Your task to perform on an android device: Go to Reddit.com Image 0: 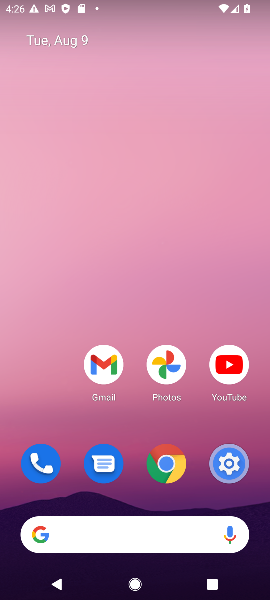
Step 0: drag from (139, 535) to (104, 123)
Your task to perform on an android device: Go to Reddit.com Image 1: 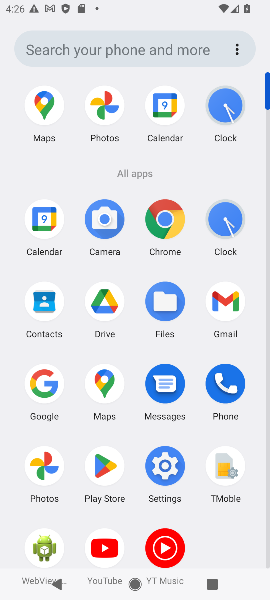
Step 1: click (44, 390)
Your task to perform on an android device: Go to Reddit.com Image 2: 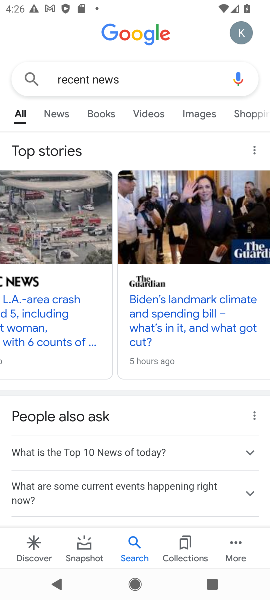
Step 2: click (154, 78)
Your task to perform on an android device: Go to Reddit.com Image 3: 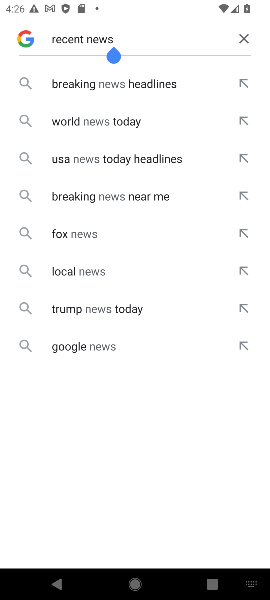
Step 3: click (245, 41)
Your task to perform on an android device: Go to Reddit.com Image 4: 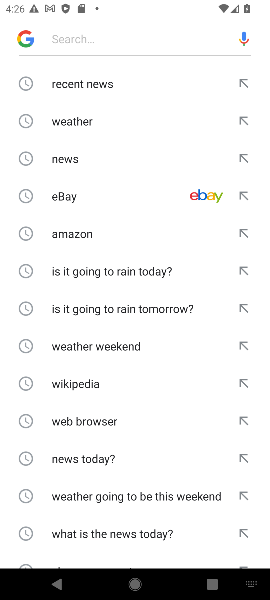
Step 4: drag from (89, 534) to (89, 170)
Your task to perform on an android device: Go to Reddit.com Image 5: 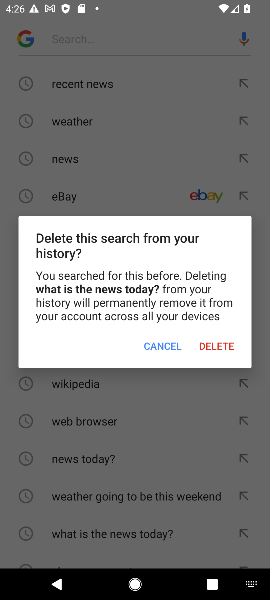
Step 5: click (168, 347)
Your task to perform on an android device: Go to Reddit.com Image 6: 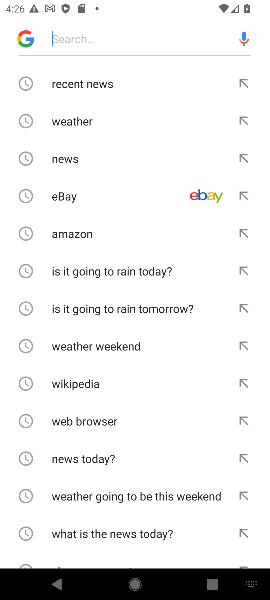
Step 6: drag from (82, 495) to (72, 197)
Your task to perform on an android device: Go to Reddit.com Image 7: 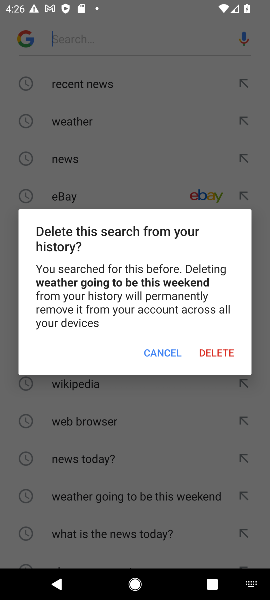
Step 7: click (150, 355)
Your task to perform on an android device: Go to Reddit.com Image 8: 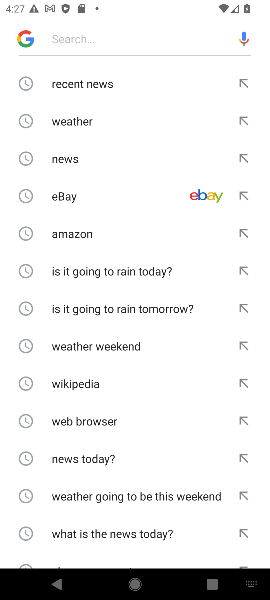
Step 8: type "Reddit.com"
Your task to perform on an android device: Go to Reddit.com Image 9: 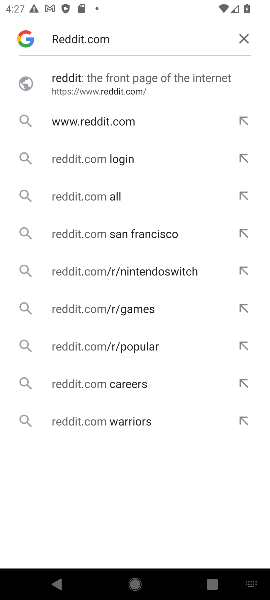
Step 9: click (85, 122)
Your task to perform on an android device: Go to Reddit.com Image 10: 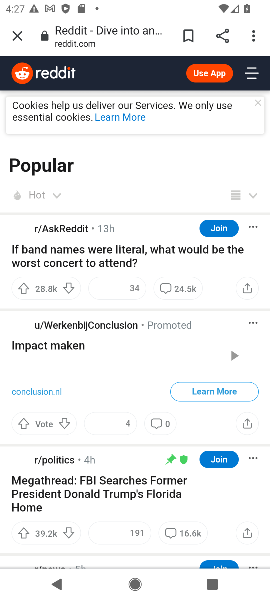
Step 10: task complete